Your task to perform on an android device: show emergency info Image 0: 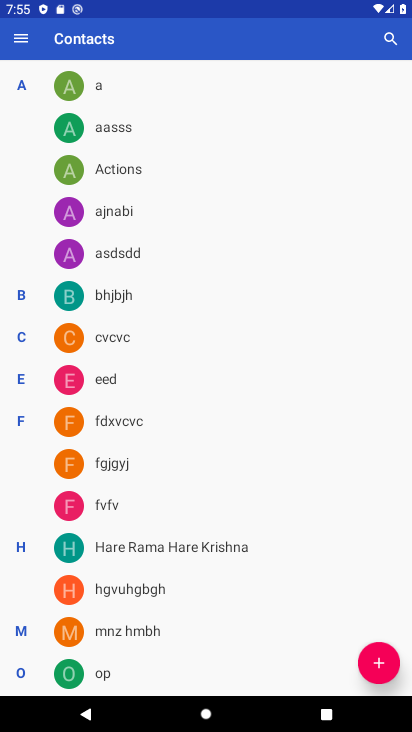
Step 0: press home button
Your task to perform on an android device: show emergency info Image 1: 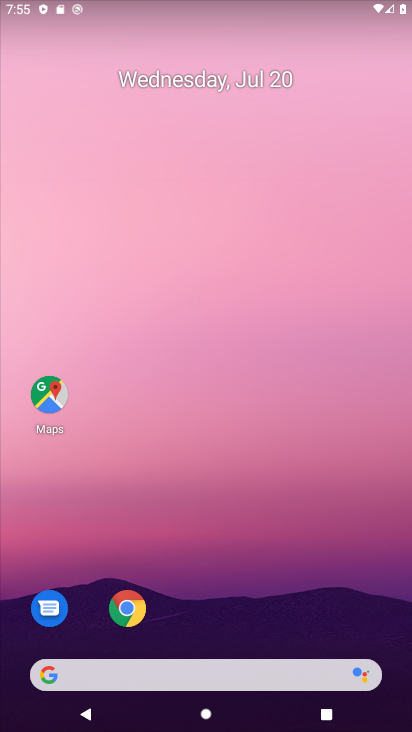
Step 1: drag from (235, 626) to (201, 5)
Your task to perform on an android device: show emergency info Image 2: 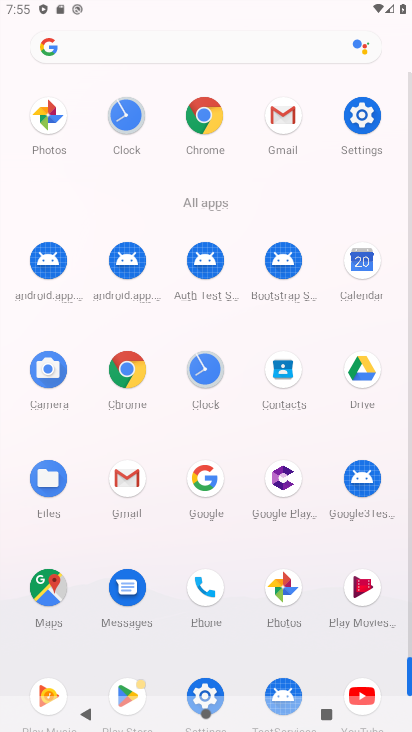
Step 2: drag from (150, 643) to (159, 432)
Your task to perform on an android device: show emergency info Image 3: 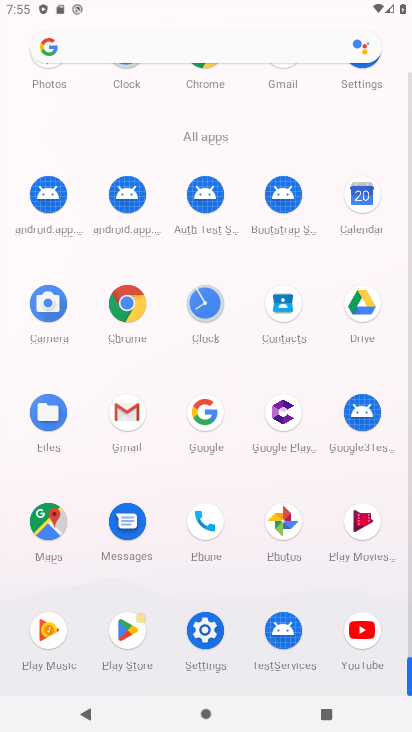
Step 3: click (208, 643)
Your task to perform on an android device: show emergency info Image 4: 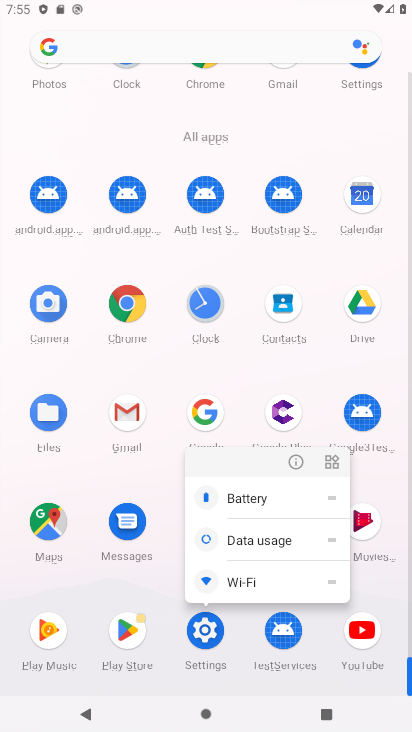
Step 4: click (200, 644)
Your task to perform on an android device: show emergency info Image 5: 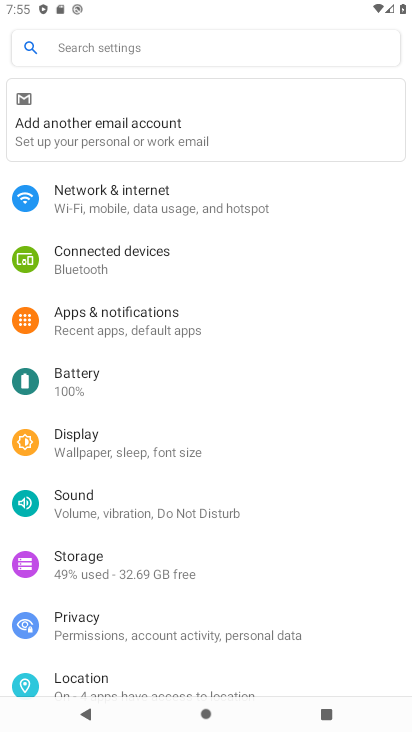
Step 5: drag from (97, 190) to (98, 103)
Your task to perform on an android device: show emergency info Image 6: 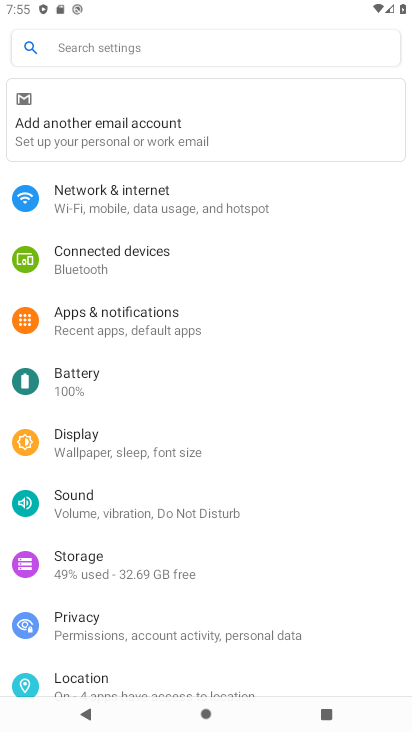
Step 6: drag from (169, 220) to (183, 116)
Your task to perform on an android device: show emergency info Image 7: 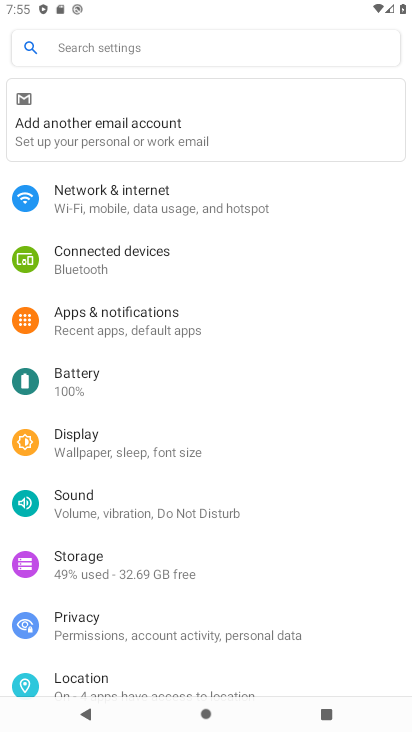
Step 7: drag from (181, 661) to (208, 80)
Your task to perform on an android device: show emergency info Image 8: 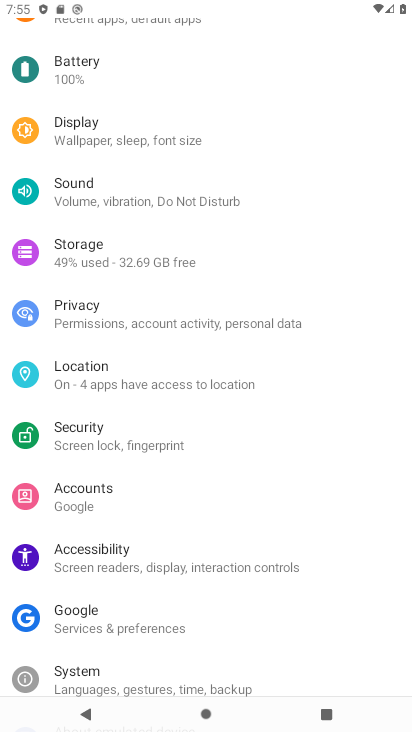
Step 8: drag from (204, 637) to (214, 45)
Your task to perform on an android device: show emergency info Image 9: 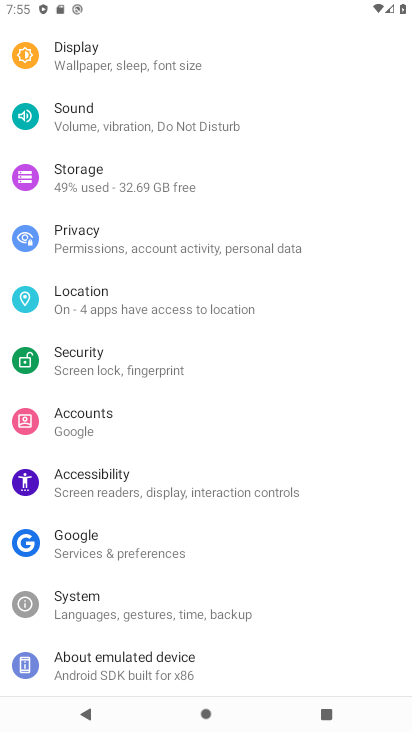
Step 9: click (131, 662)
Your task to perform on an android device: show emergency info Image 10: 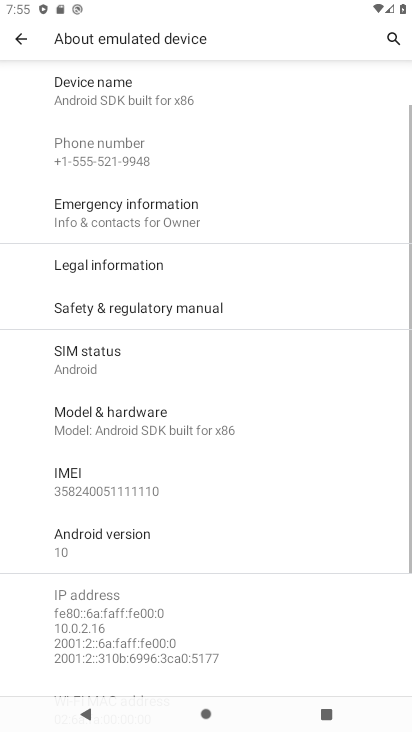
Step 10: click (155, 219)
Your task to perform on an android device: show emergency info Image 11: 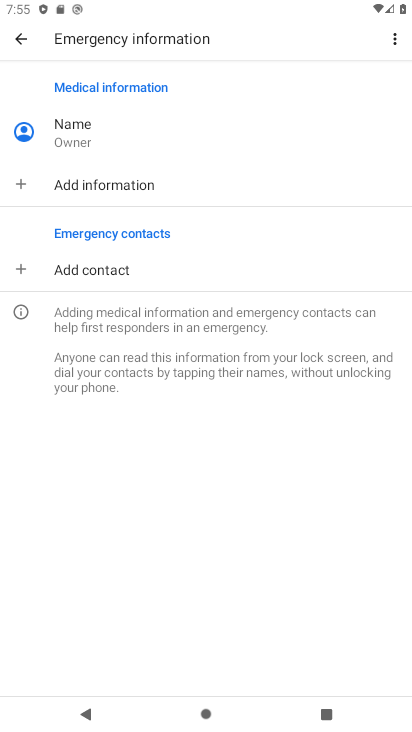
Step 11: task complete